Your task to perform on an android device: create a new album in the google photos Image 0: 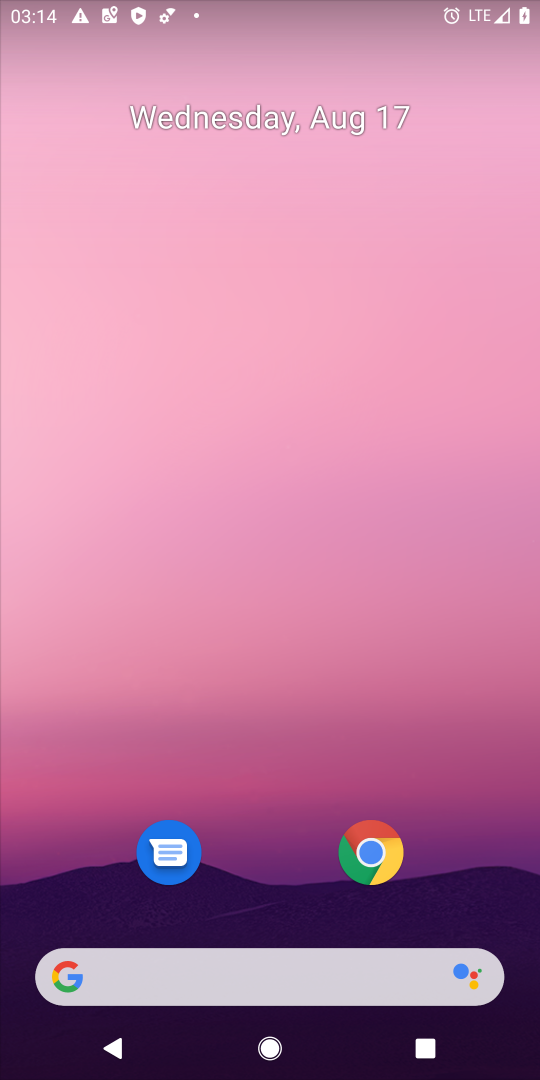
Step 0: drag from (277, 828) to (502, 28)
Your task to perform on an android device: create a new album in the google photos Image 1: 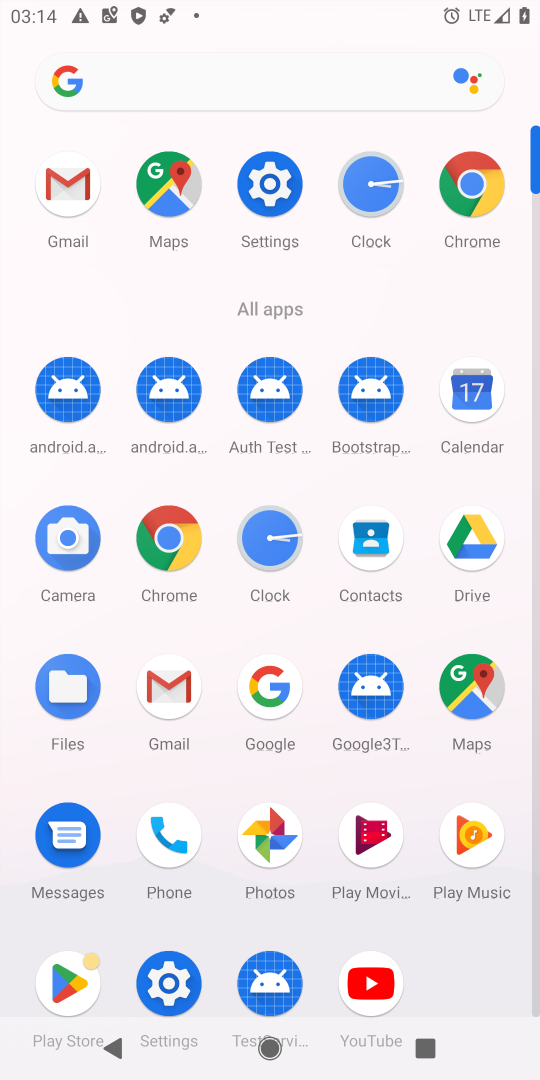
Step 1: click (447, 485)
Your task to perform on an android device: create a new album in the google photos Image 2: 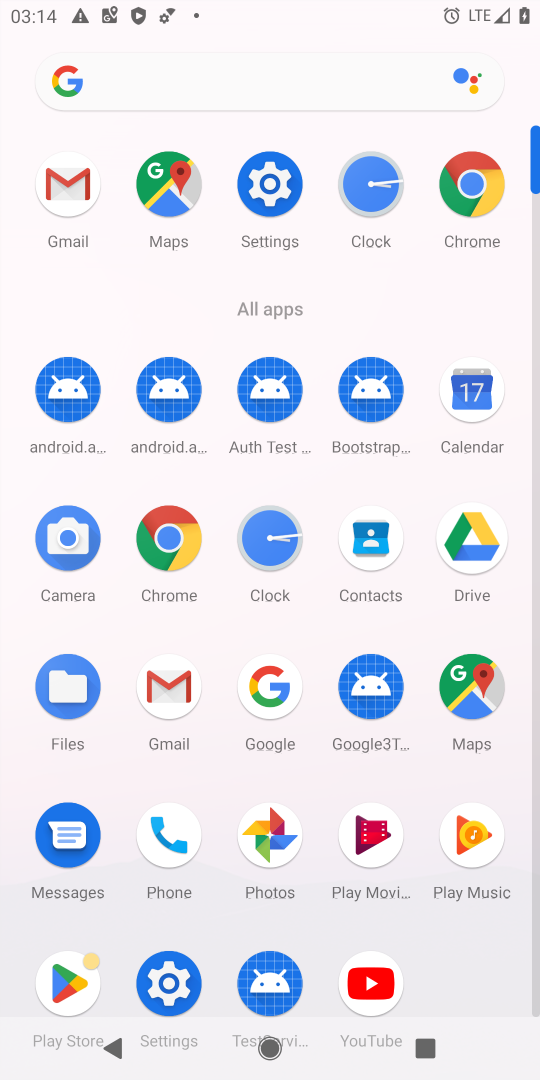
Step 2: click (447, 485)
Your task to perform on an android device: create a new album in the google photos Image 3: 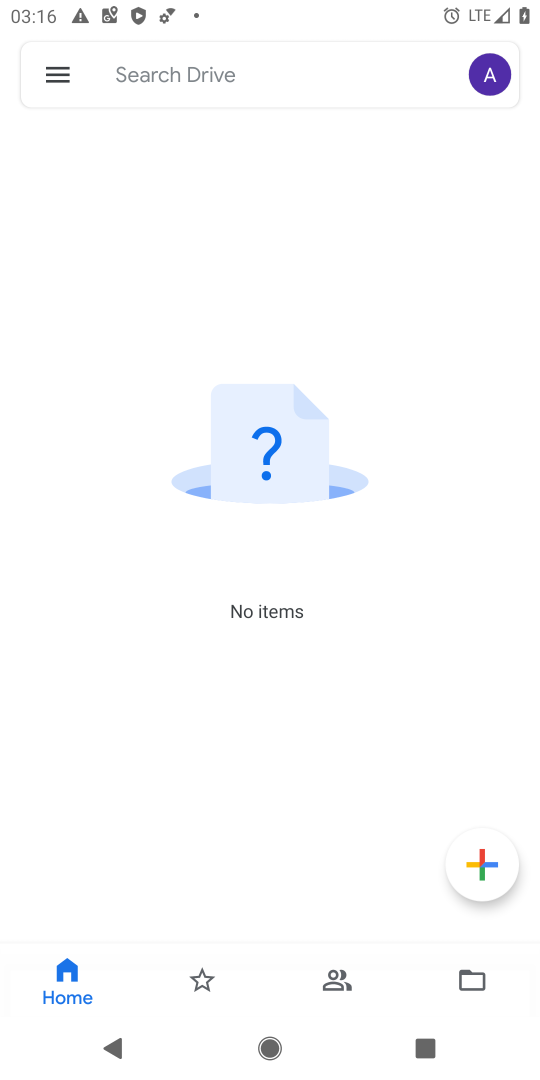
Step 3: click (447, 485)
Your task to perform on an android device: create a new album in the google photos Image 4: 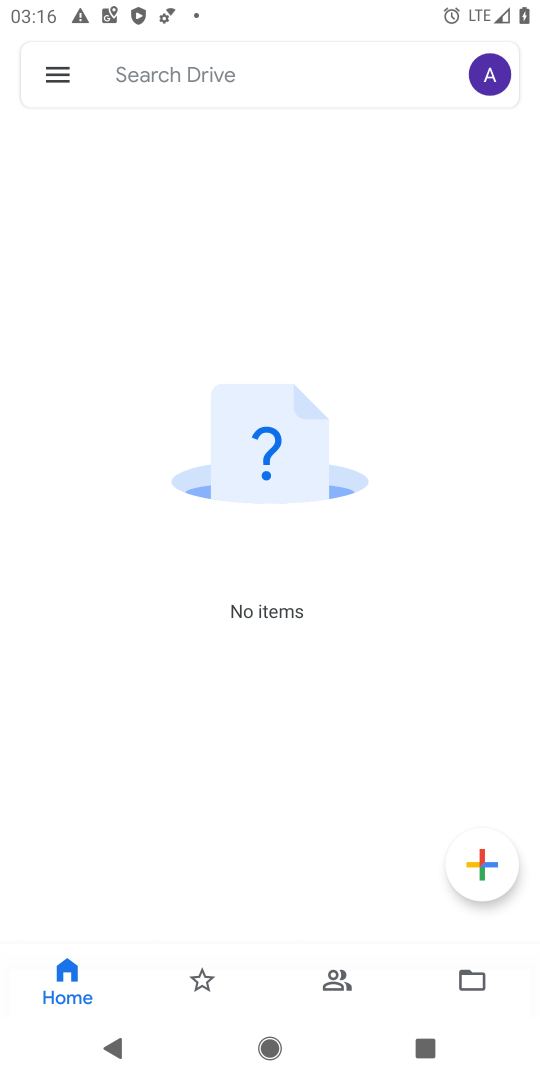
Step 4: press home button
Your task to perform on an android device: create a new album in the google photos Image 5: 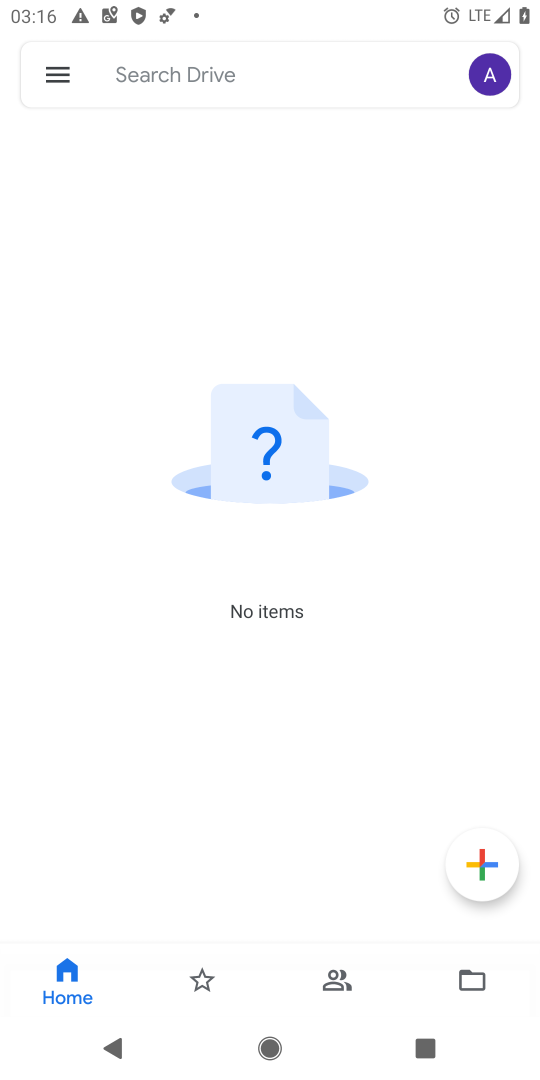
Step 5: press home button
Your task to perform on an android device: create a new album in the google photos Image 6: 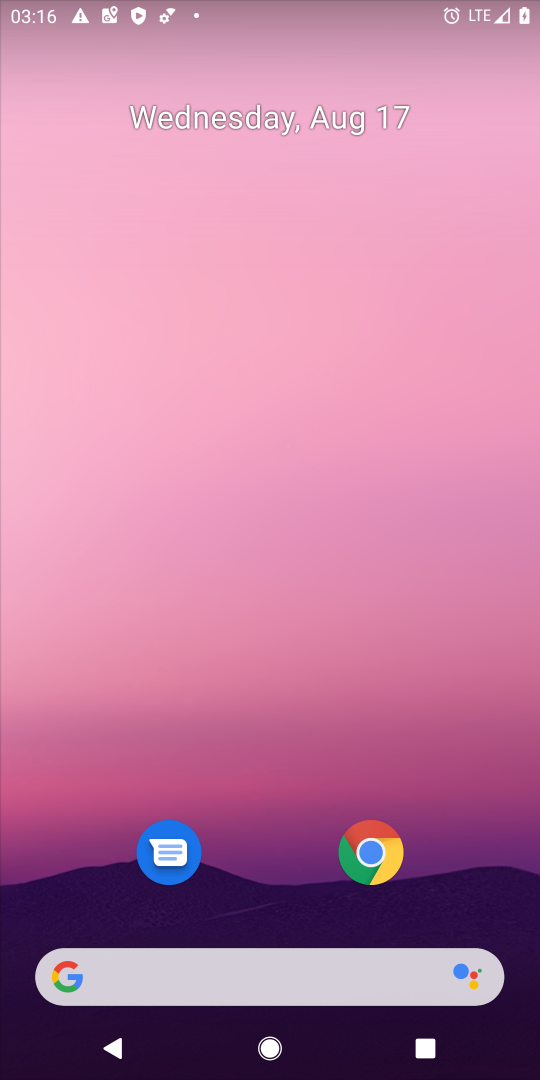
Step 6: drag from (265, 765) to (320, 17)
Your task to perform on an android device: create a new album in the google photos Image 7: 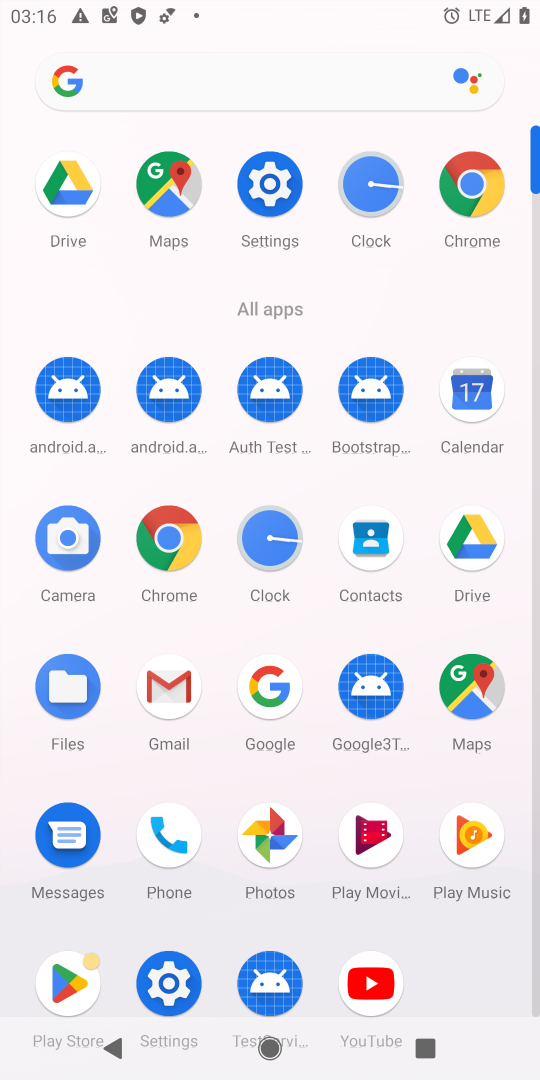
Step 7: click (281, 833)
Your task to perform on an android device: create a new album in the google photos Image 8: 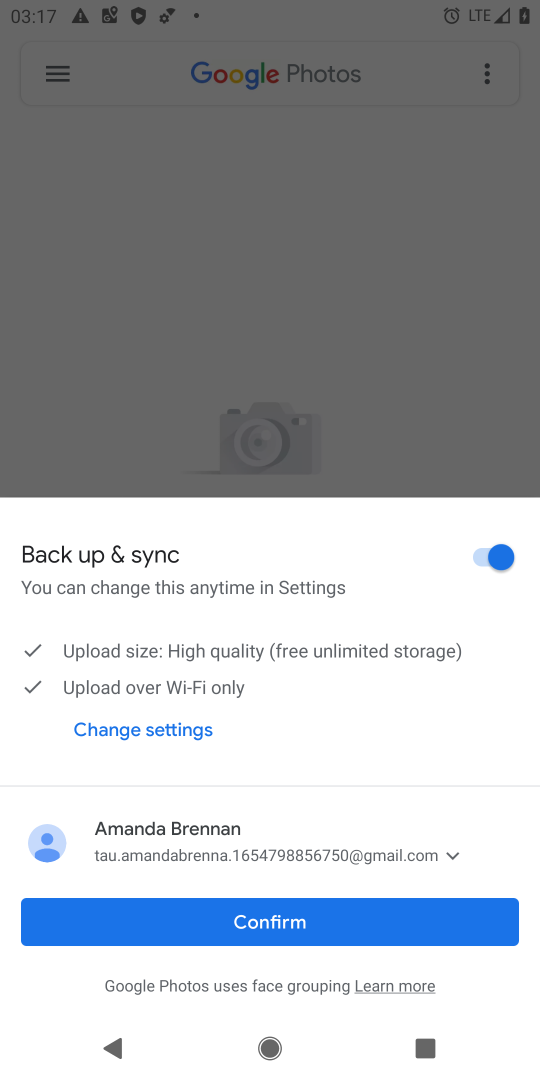
Step 8: click (322, 913)
Your task to perform on an android device: create a new album in the google photos Image 9: 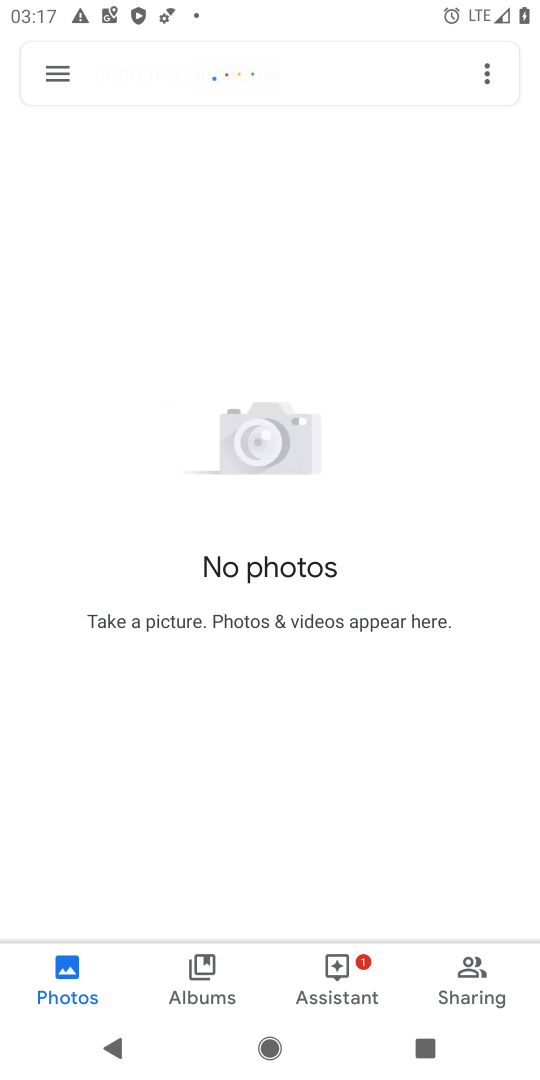
Step 9: click (219, 977)
Your task to perform on an android device: create a new album in the google photos Image 10: 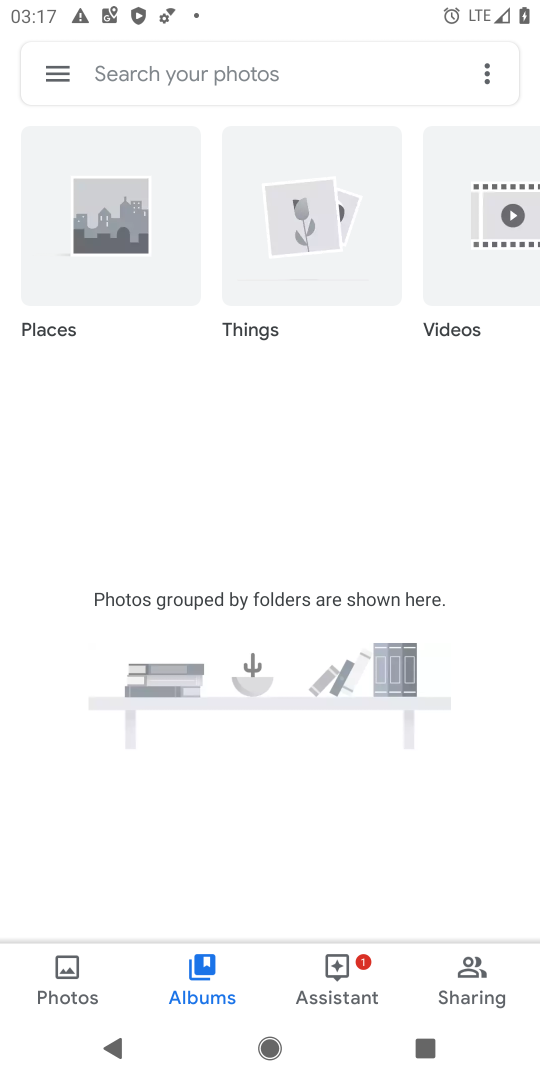
Step 10: task complete